Your task to perform on an android device: What is the news today? Image 0: 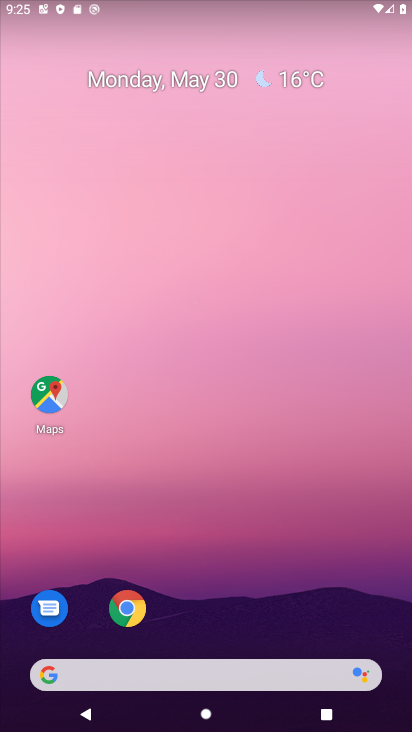
Step 0: drag from (64, 290) to (405, 242)
Your task to perform on an android device: What is the news today? Image 1: 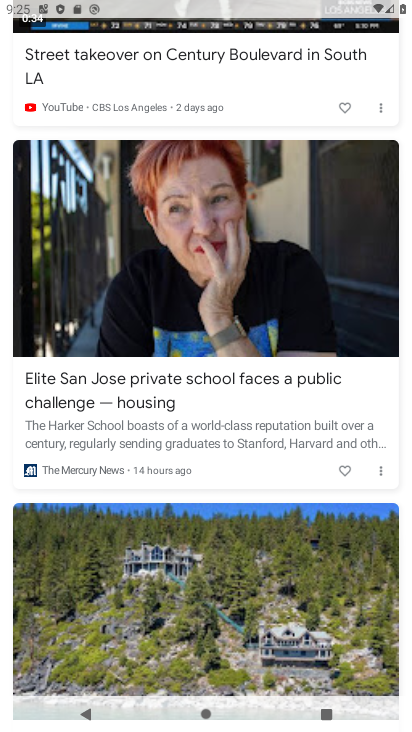
Step 1: task complete